Your task to perform on an android device: uninstall "HBO Max: Stream TV & Movies" Image 0: 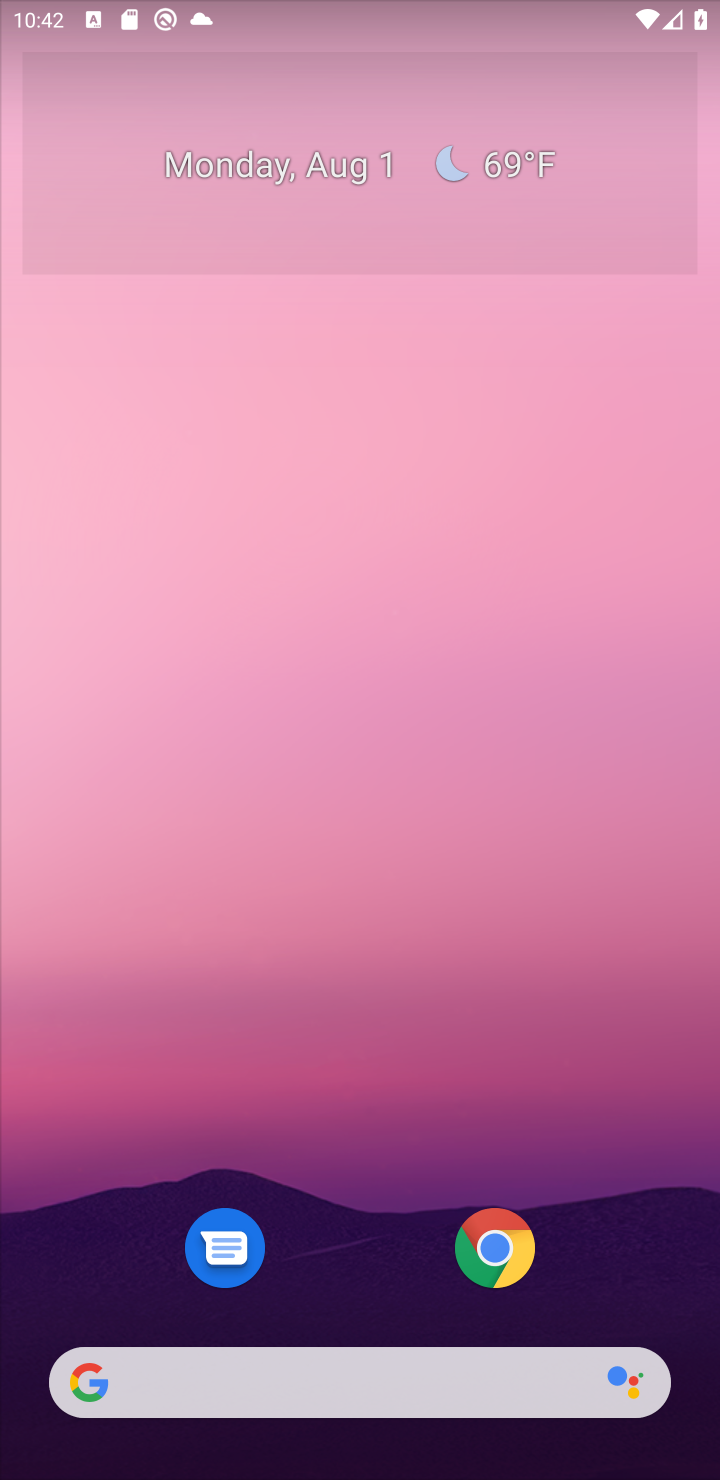
Step 0: drag from (335, 1203) to (411, 82)
Your task to perform on an android device: uninstall "HBO Max: Stream TV & Movies" Image 1: 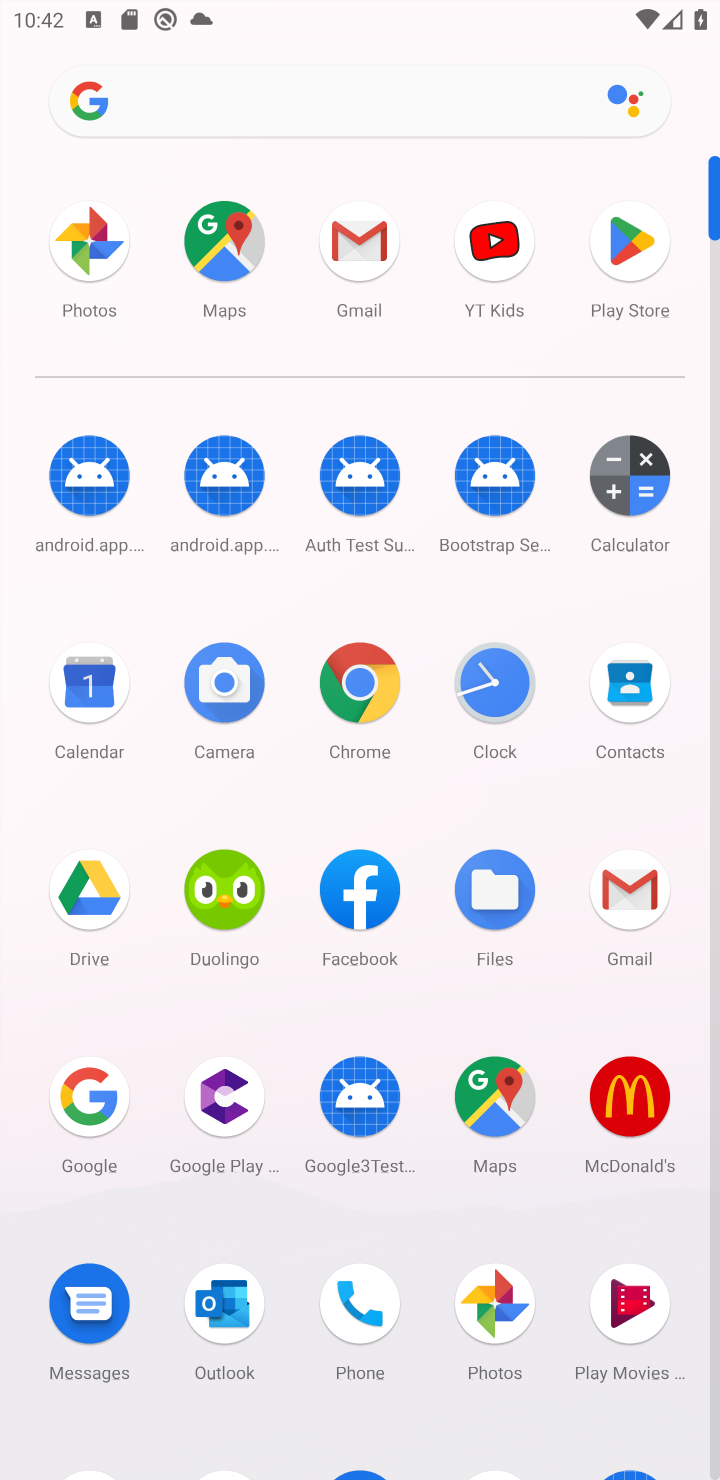
Step 1: drag from (280, 1251) to (343, 607)
Your task to perform on an android device: uninstall "HBO Max: Stream TV & Movies" Image 2: 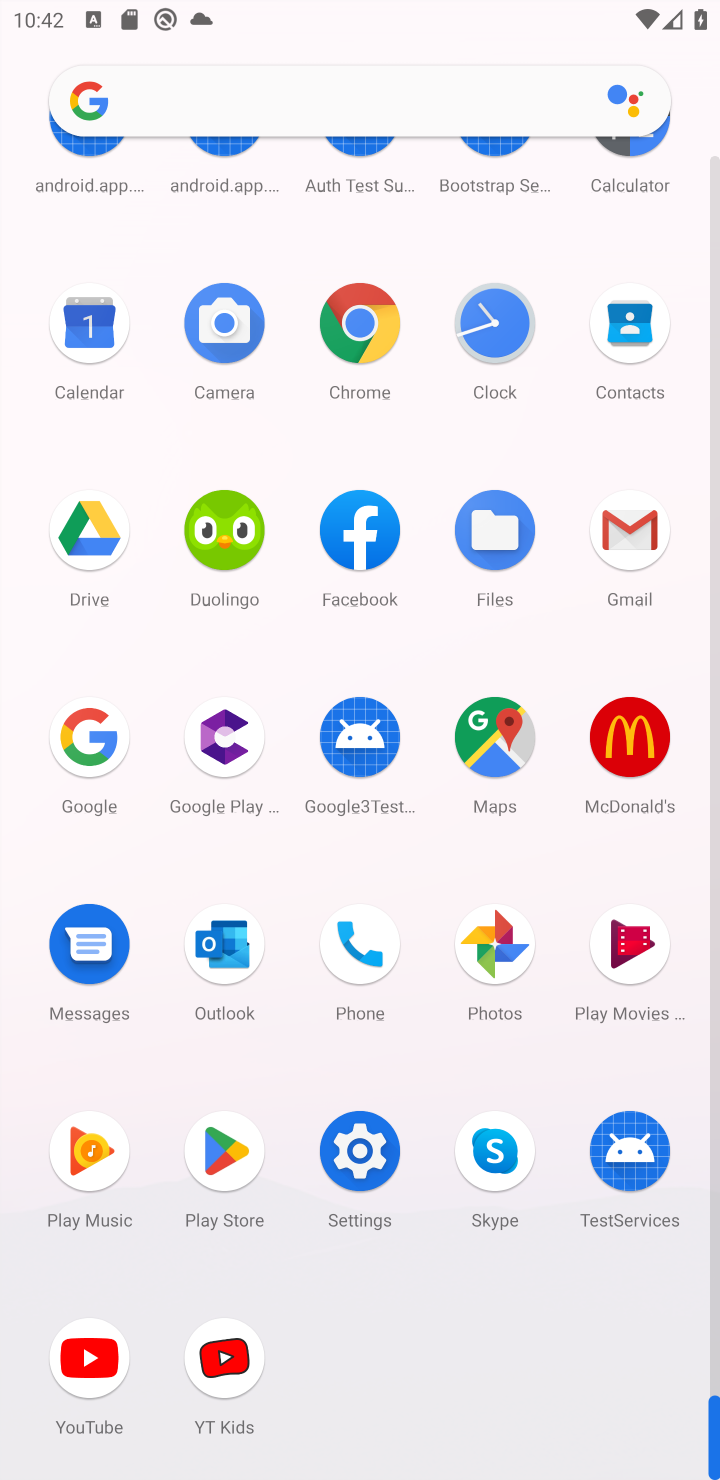
Step 2: click (220, 1150)
Your task to perform on an android device: uninstall "HBO Max: Stream TV & Movies" Image 3: 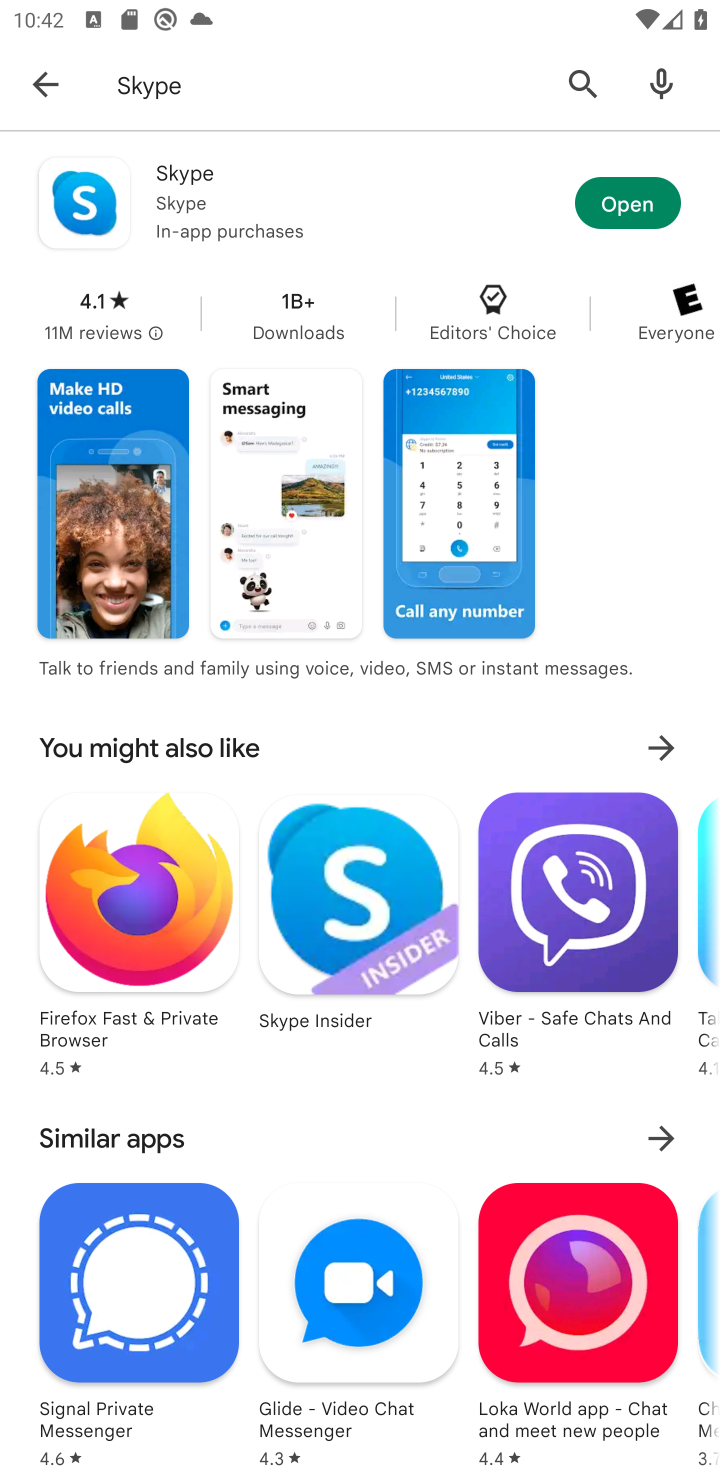
Step 3: click (246, 85)
Your task to perform on an android device: uninstall "HBO Max: Stream TV & Movies" Image 4: 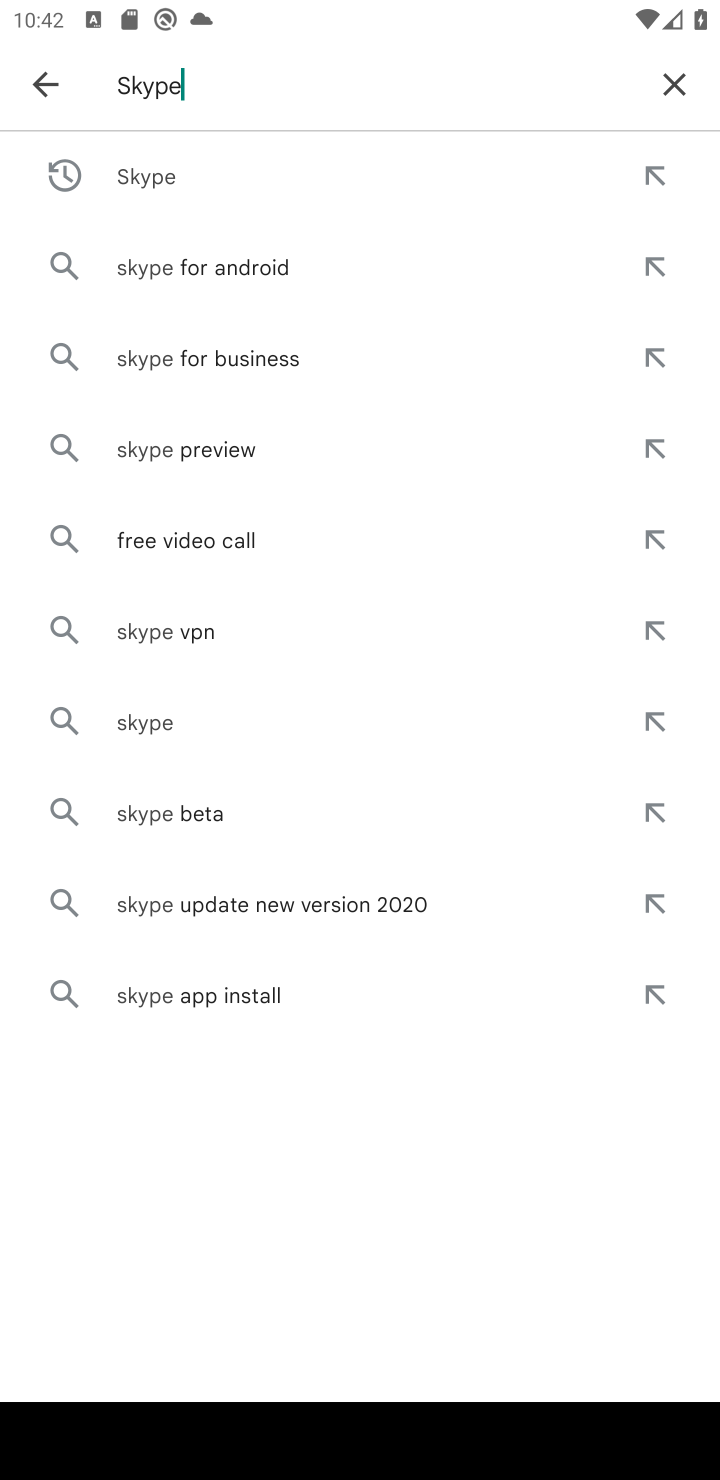
Step 4: click (672, 83)
Your task to perform on an android device: uninstall "HBO Max: Stream TV & Movies" Image 5: 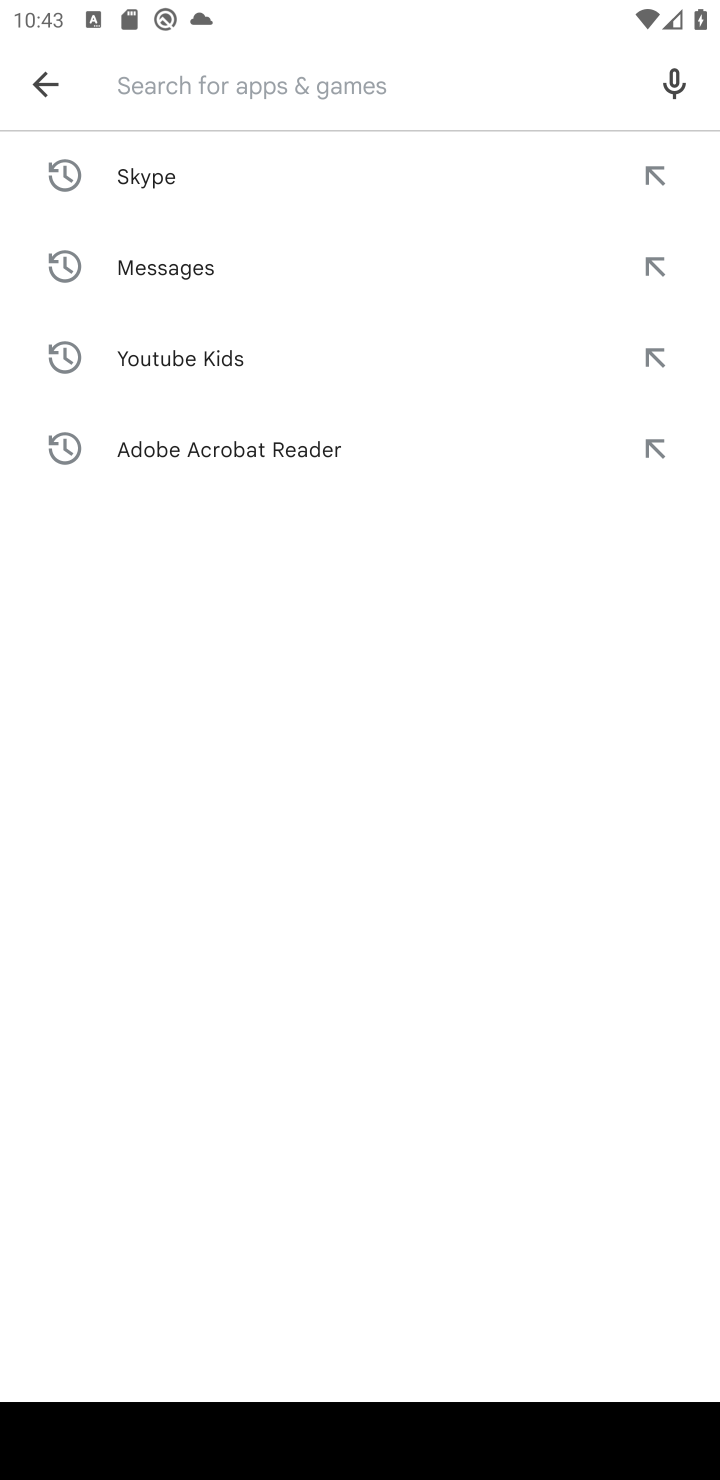
Step 5: type "HBO Max: Stream TV & Movies"
Your task to perform on an android device: uninstall "HBO Max: Stream TV & Movies" Image 6: 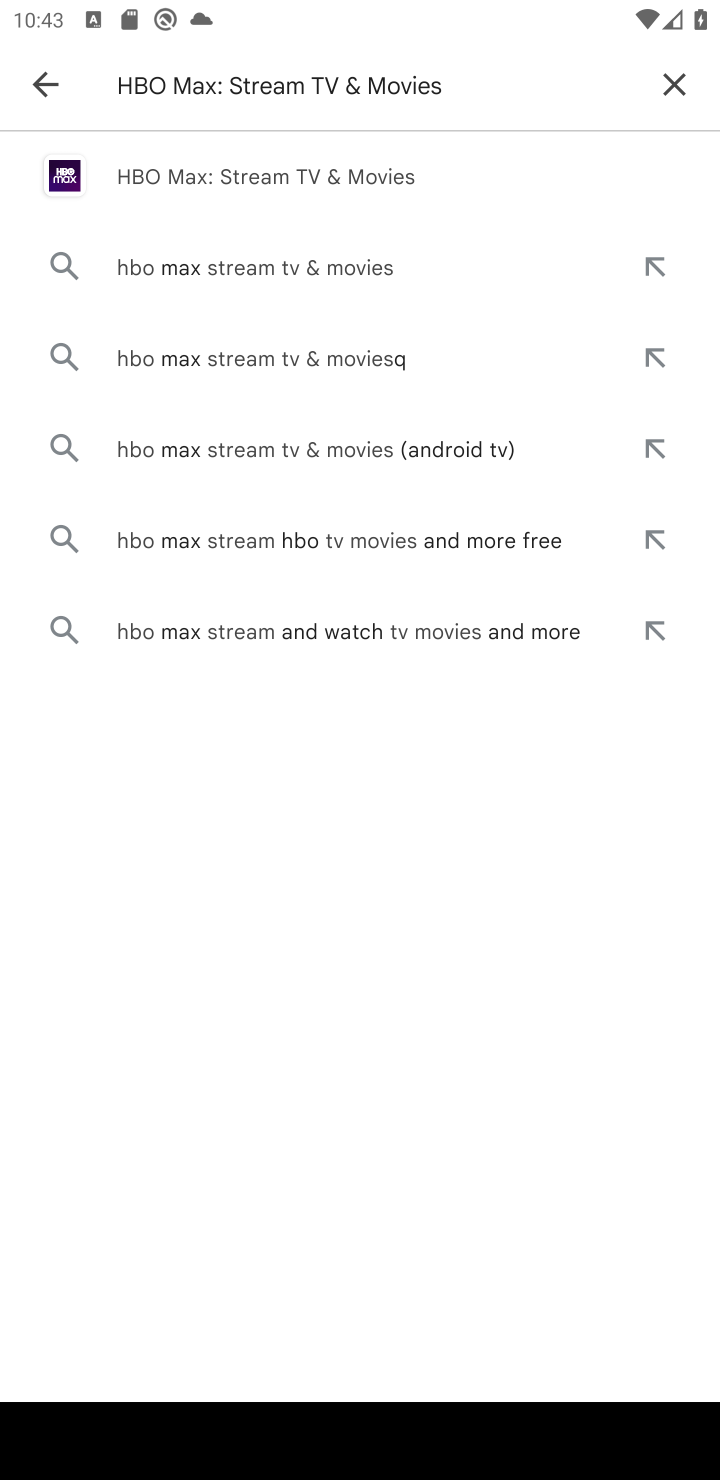
Step 6: press enter
Your task to perform on an android device: uninstall "HBO Max: Stream TV & Movies" Image 7: 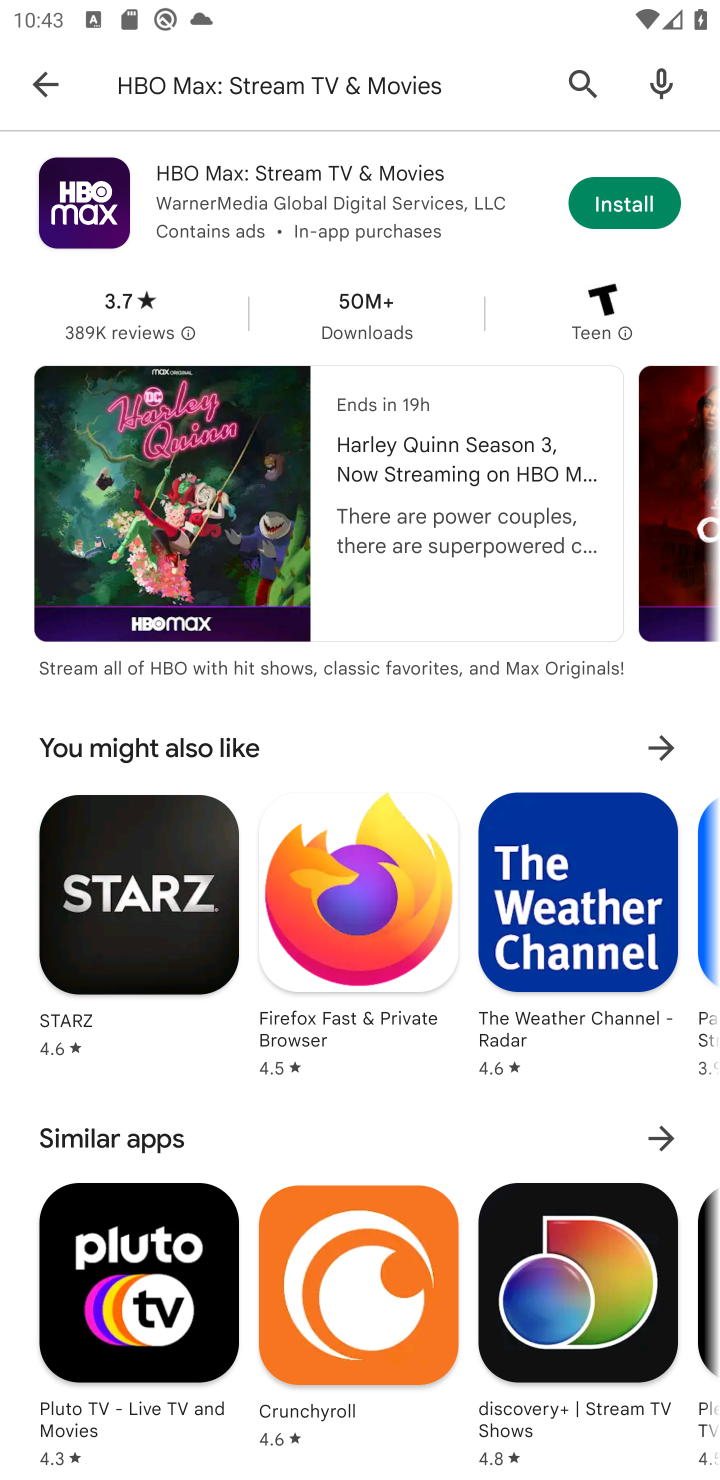
Step 7: task complete